Your task to perform on an android device: turn off improve location accuracy Image 0: 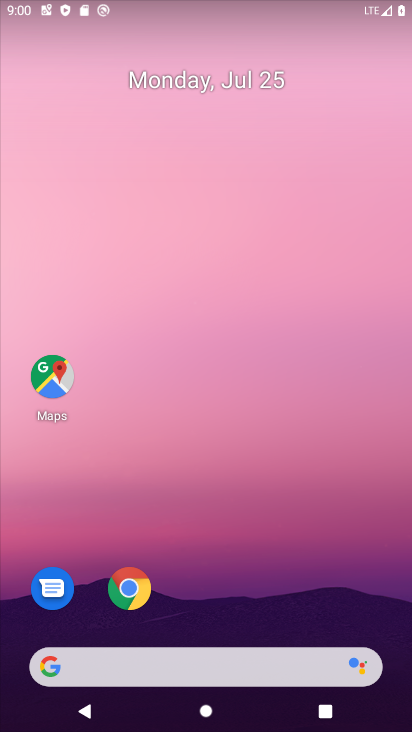
Step 0: drag from (93, 665) to (102, 85)
Your task to perform on an android device: turn off improve location accuracy Image 1: 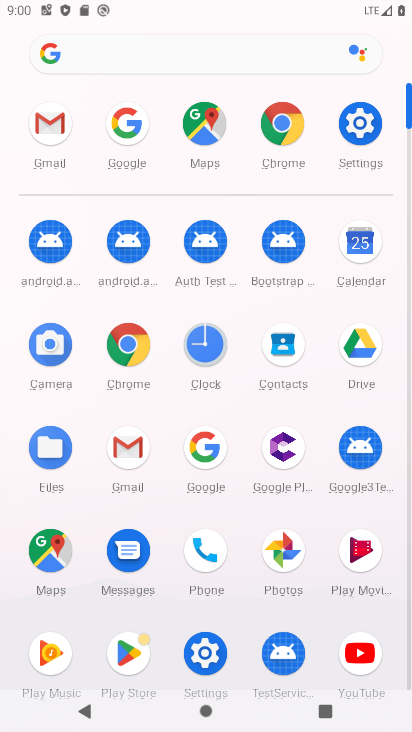
Step 1: click (363, 123)
Your task to perform on an android device: turn off improve location accuracy Image 2: 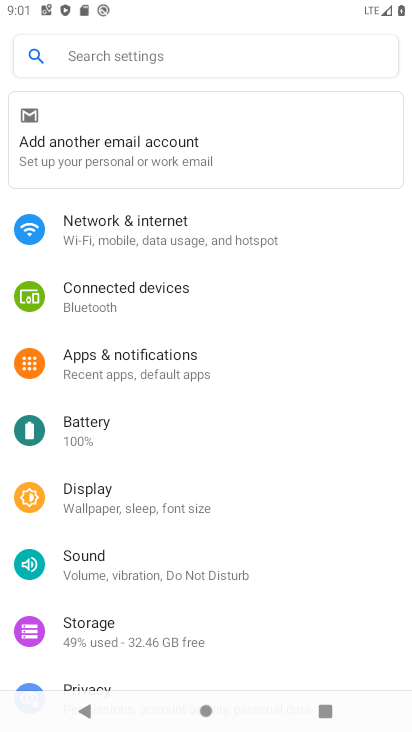
Step 2: drag from (111, 620) to (163, 107)
Your task to perform on an android device: turn off improve location accuracy Image 3: 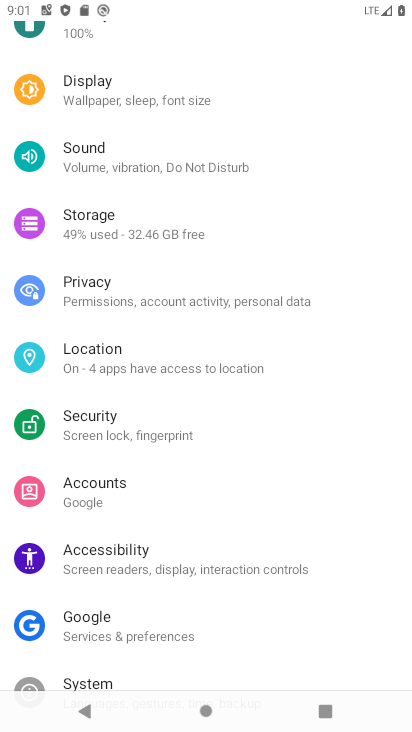
Step 3: click (102, 357)
Your task to perform on an android device: turn off improve location accuracy Image 4: 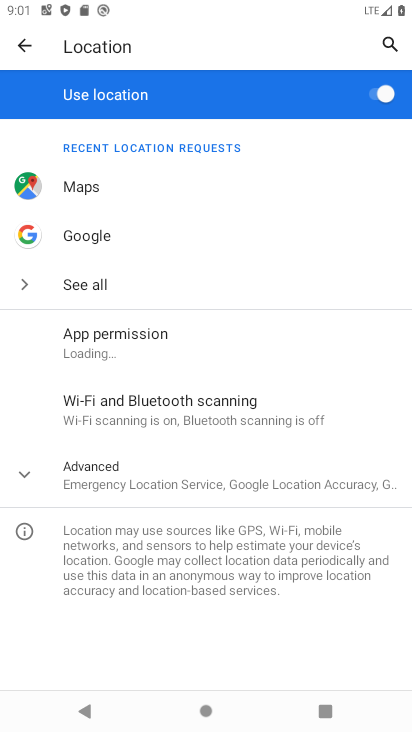
Step 4: click (72, 463)
Your task to perform on an android device: turn off improve location accuracy Image 5: 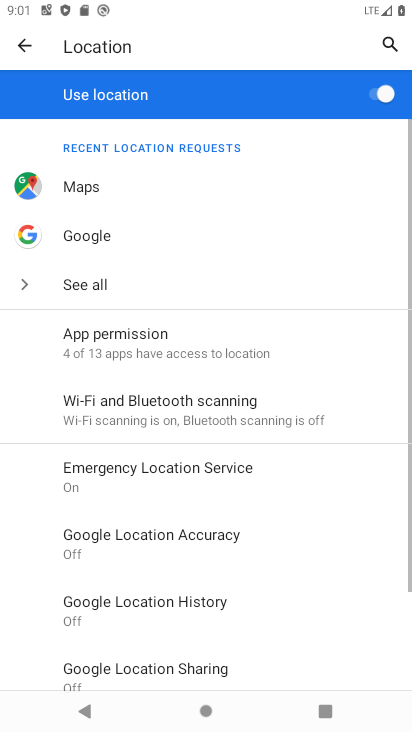
Step 5: click (166, 549)
Your task to perform on an android device: turn off improve location accuracy Image 6: 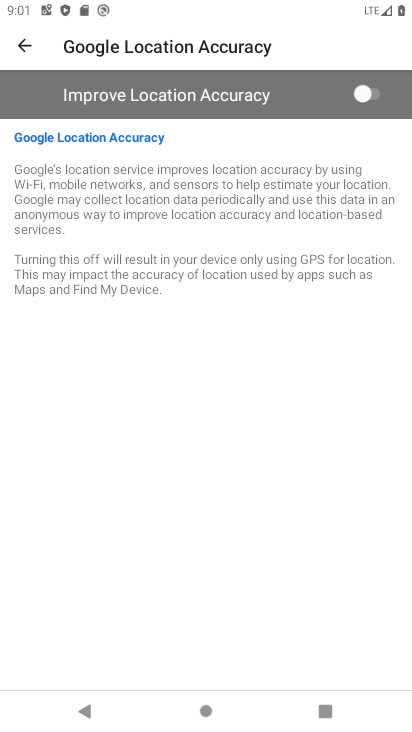
Step 6: task complete